Your task to perform on an android device: Go to wifi settings Image 0: 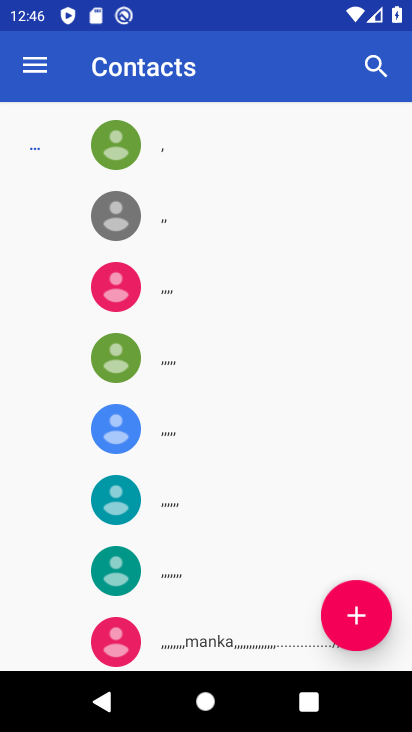
Step 0: press home button
Your task to perform on an android device: Go to wifi settings Image 1: 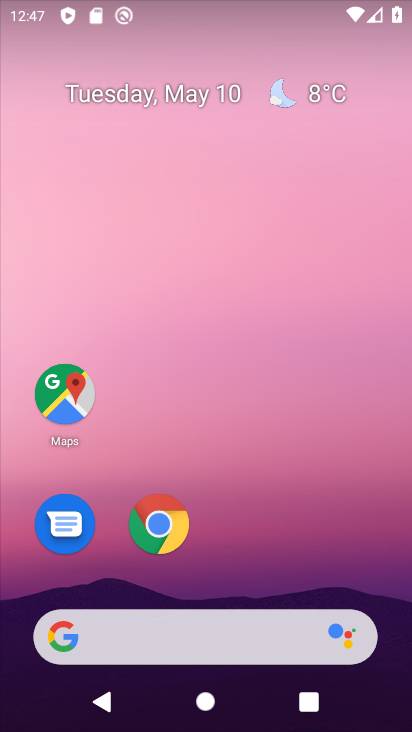
Step 1: drag from (308, 512) to (347, 82)
Your task to perform on an android device: Go to wifi settings Image 2: 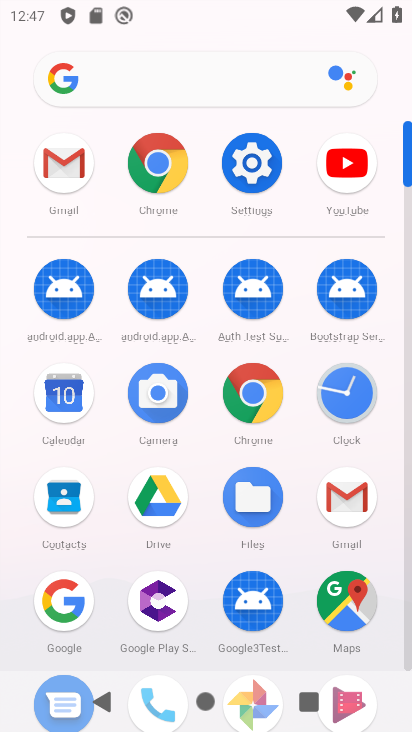
Step 2: click (262, 162)
Your task to perform on an android device: Go to wifi settings Image 3: 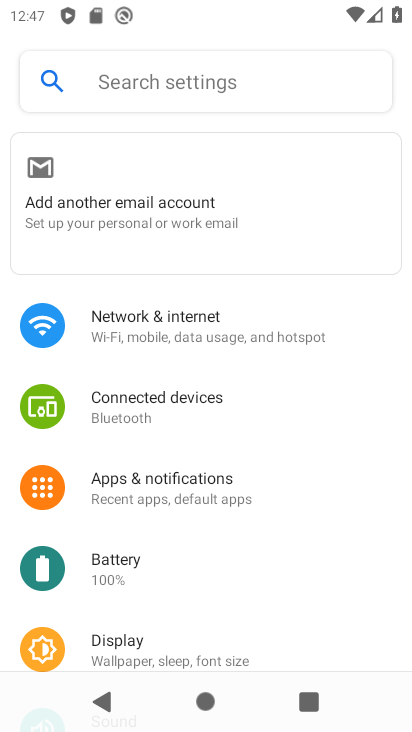
Step 3: click (157, 318)
Your task to perform on an android device: Go to wifi settings Image 4: 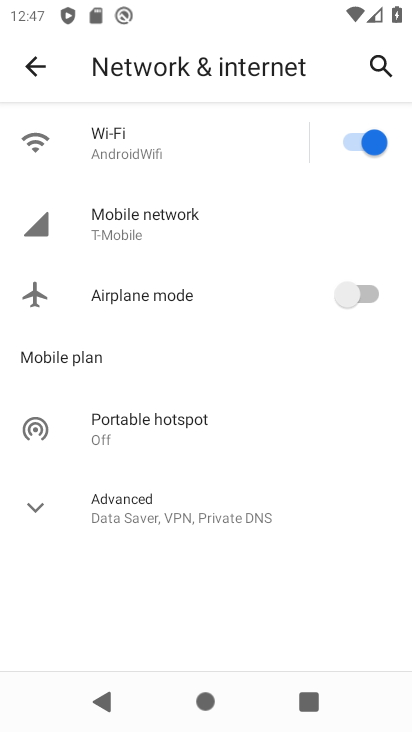
Step 4: click (222, 130)
Your task to perform on an android device: Go to wifi settings Image 5: 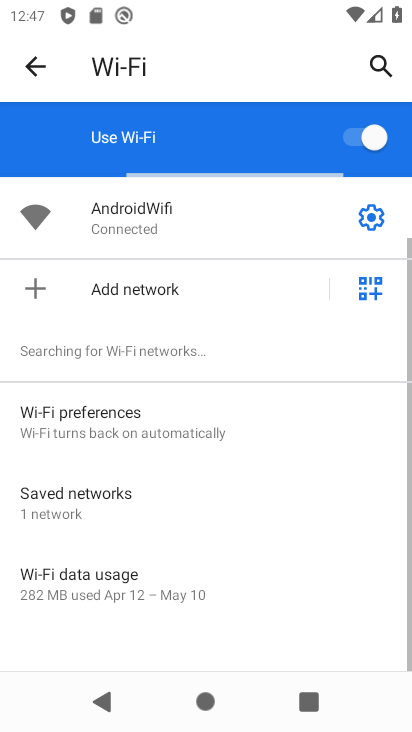
Step 5: task complete